Your task to perform on an android device: Open Wikipedia Image 0: 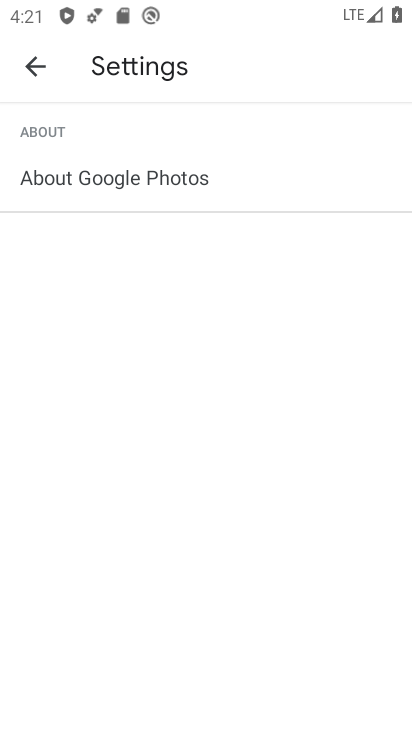
Step 0: press home button
Your task to perform on an android device: Open Wikipedia Image 1: 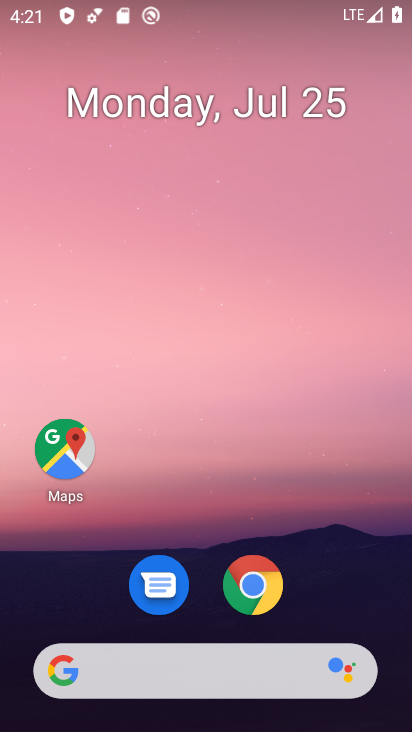
Step 1: click (258, 585)
Your task to perform on an android device: Open Wikipedia Image 2: 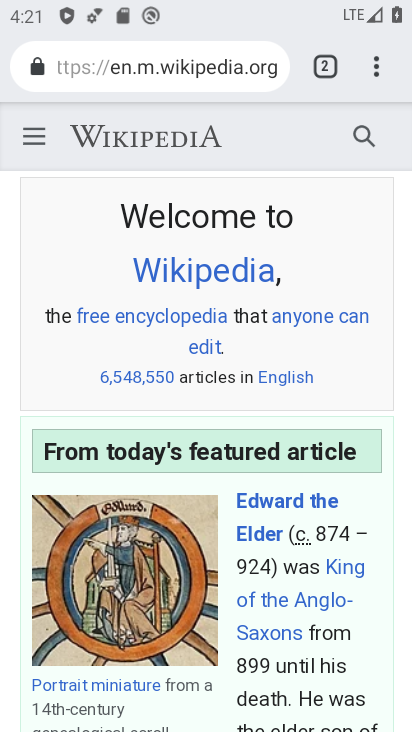
Step 2: task complete